Your task to perform on an android device: allow cookies in the chrome app Image 0: 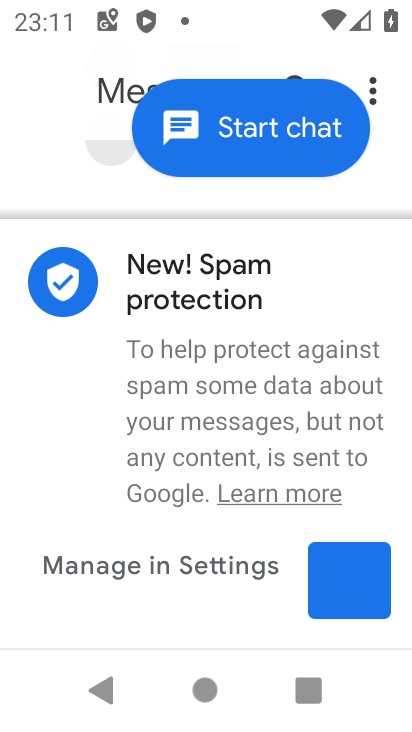
Step 0: press home button
Your task to perform on an android device: allow cookies in the chrome app Image 1: 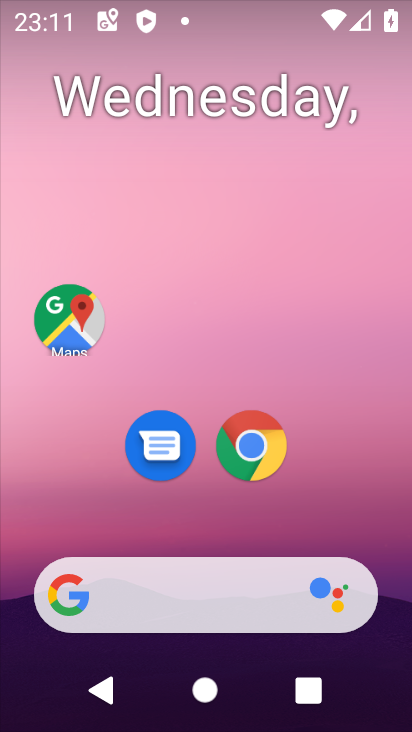
Step 1: drag from (353, 399) to (358, 107)
Your task to perform on an android device: allow cookies in the chrome app Image 2: 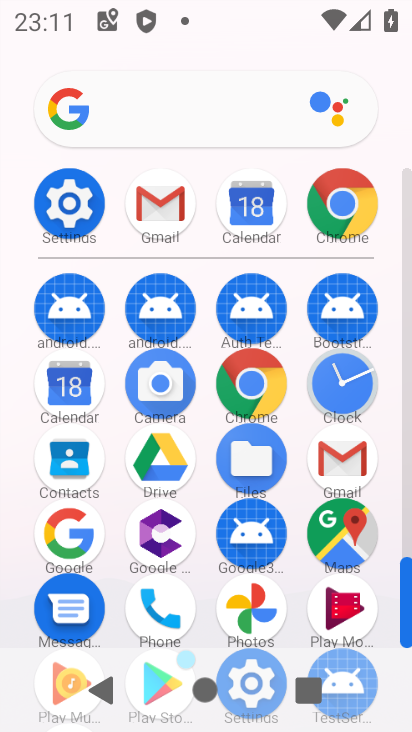
Step 2: click (356, 194)
Your task to perform on an android device: allow cookies in the chrome app Image 3: 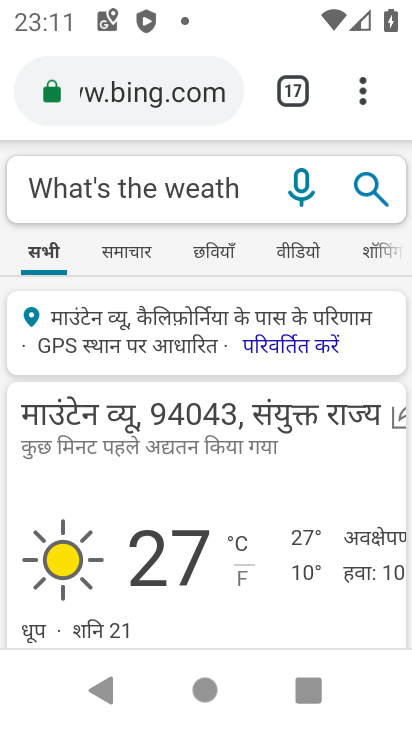
Step 3: click (373, 88)
Your task to perform on an android device: allow cookies in the chrome app Image 4: 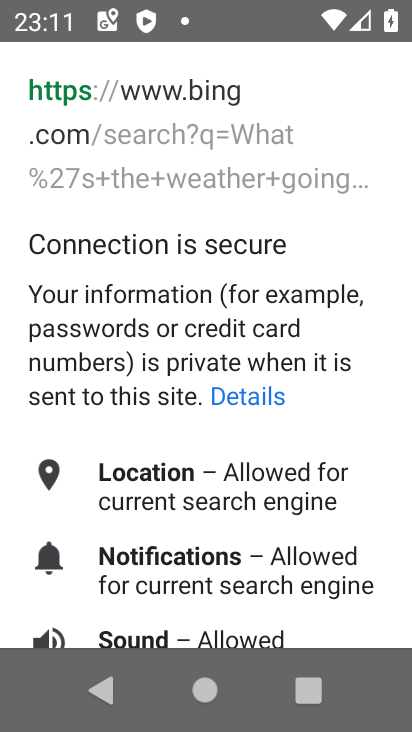
Step 4: press back button
Your task to perform on an android device: allow cookies in the chrome app Image 5: 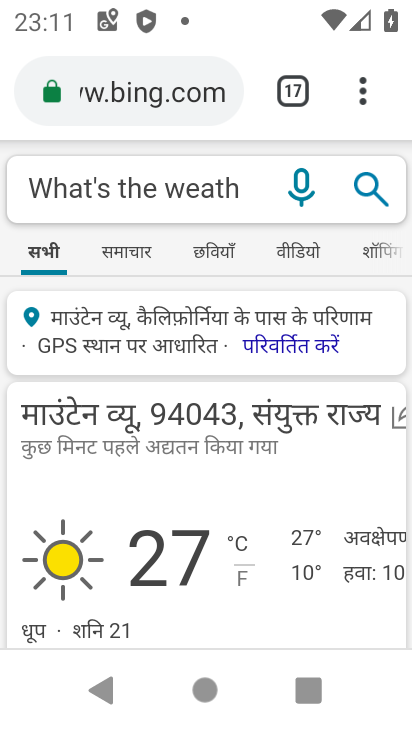
Step 5: click (370, 99)
Your task to perform on an android device: allow cookies in the chrome app Image 6: 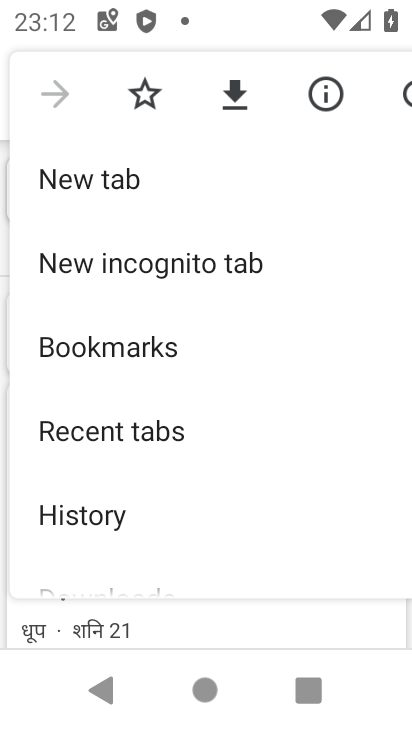
Step 6: drag from (169, 530) to (218, 219)
Your task to perform on an android device: allow cookies in the chrome app Image 7: 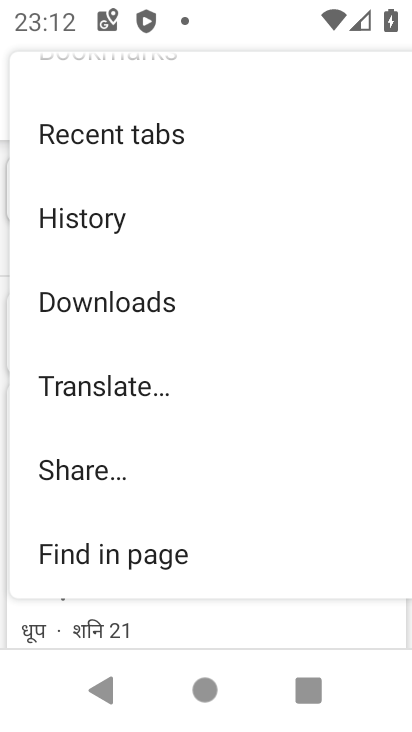
Step 7: drag from (128, 527) to (191, 216)
Your task to perform on an android device: allow cookies in the chrome app Image 8: 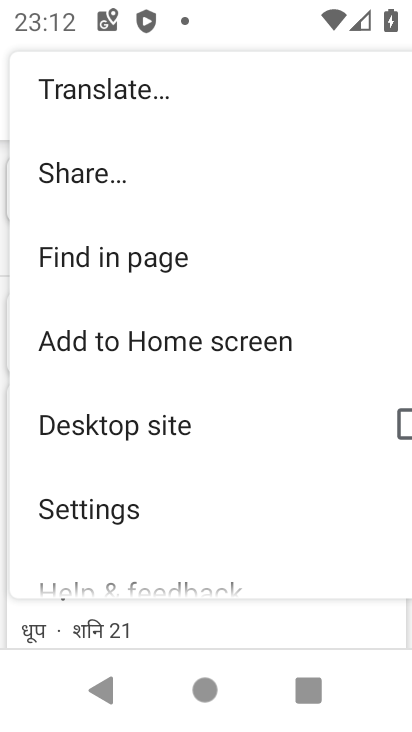
Step 8: click (114, 515)
Your task to perform on an android device: allow cookies in the chrome app Image 9: 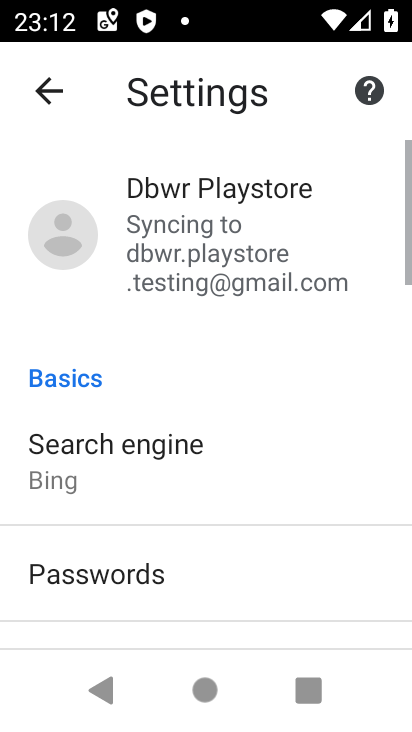
Step 9: drag from (166, 507) to (233, 160)
Your task to perform on an android device: allow cookies in the chrome app Image 10: 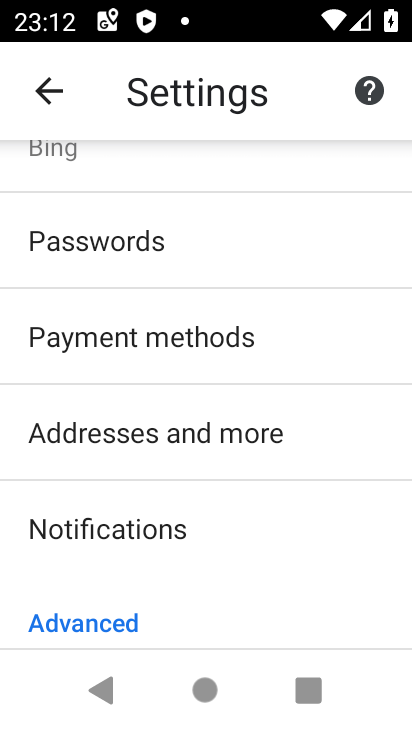
Step 10: drag from (177, 541) to (241, 232)
Your task to perform on an android device: allow cookies in the chrome app Image 11: 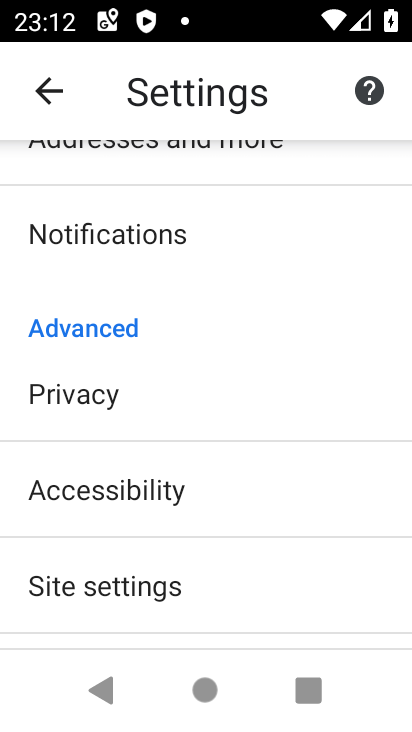
Step 11: click (220, 583)
Your task to perform on an android device: allow cookies in the chrome app Image 12: 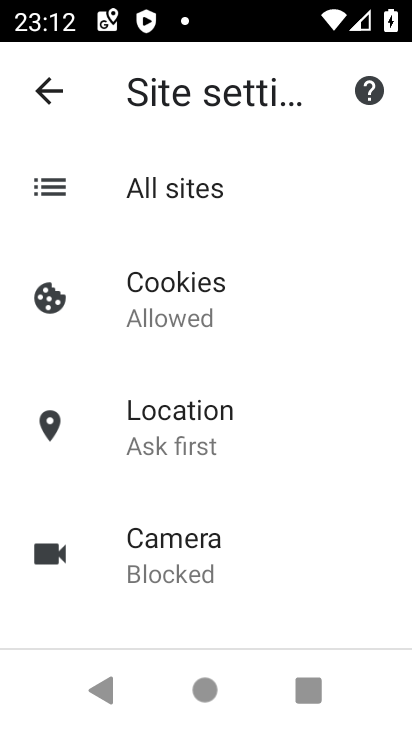
Step 12: click (199, 268)
Your task to perform on an android device: allow cookies in the chrome app Image 13: 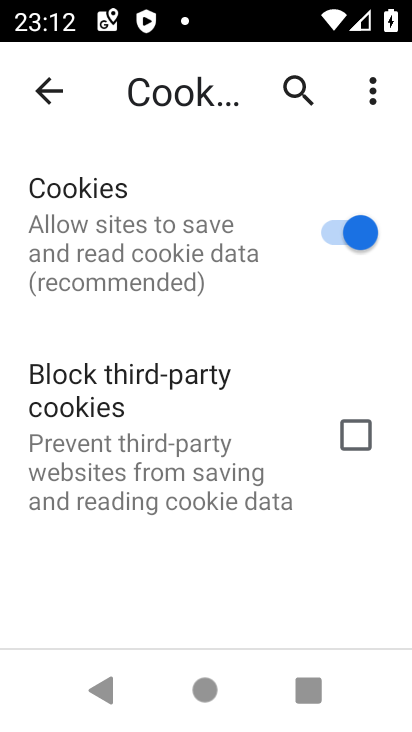
Step 13: task complete